Your task to perform on an android device: change notifications settings Image 0: 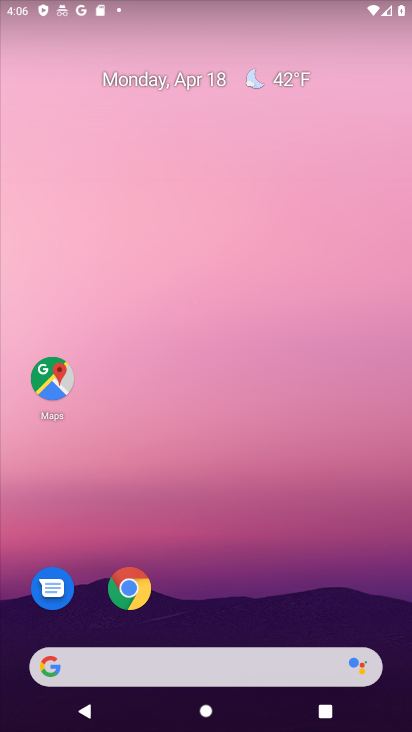
Step 0: drag from (254, 532) to (267, 166)
Your task to perform on an android device: change notifications settings Image 1: 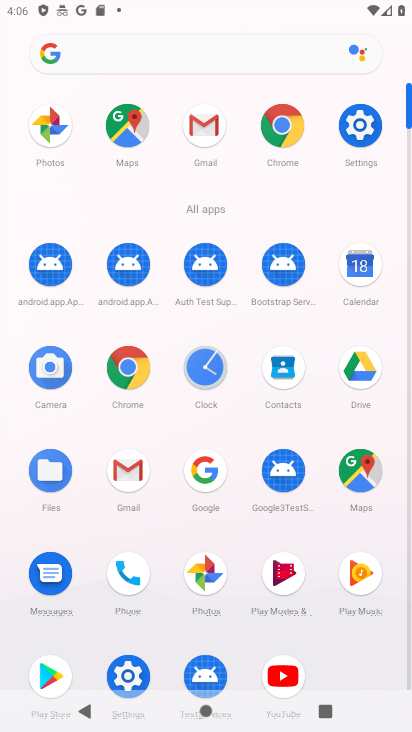
Step 1: click (369, 127)
Your task to perform on an android device: change notifications settings Image 2: 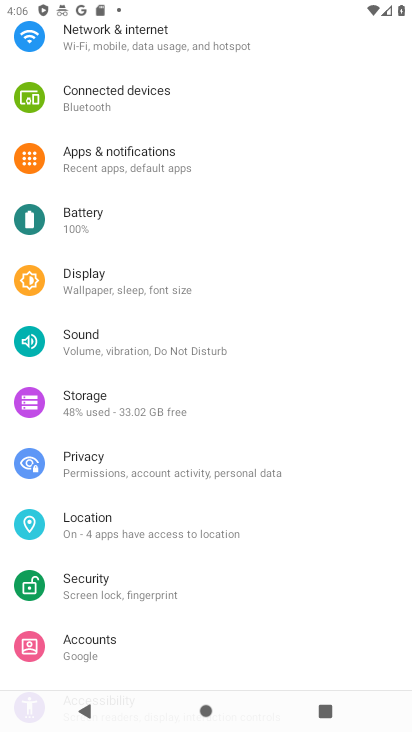
Step 2: click (198, 159)
Your task to perform on an android device: change notifications settings Image 3: 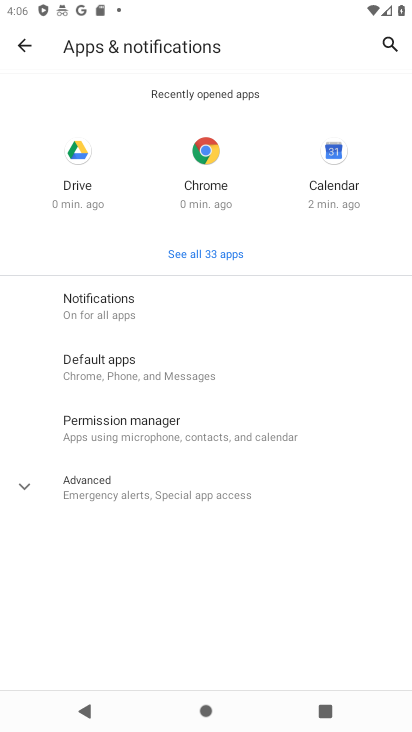
Step 3: click (155, 310)
Your task to perform on an android device: change notifications settings Image 4: 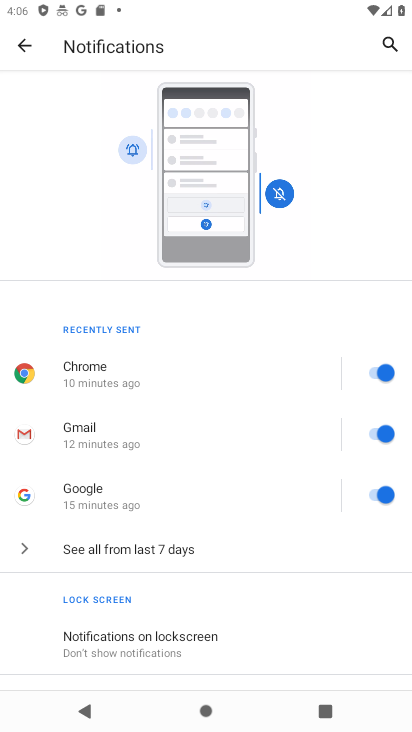
Step 4: click (382, 378)
Your task to perform on an android device: change notifications settings Image 5: 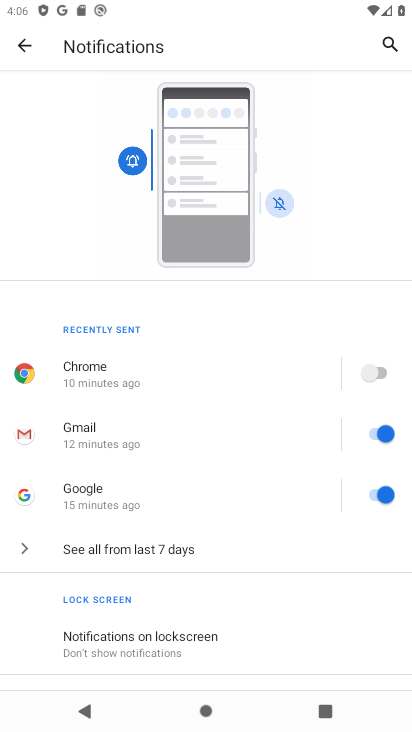
Step 5: task complete